Your task to perform on an android device: change keyboard looks Image 0: 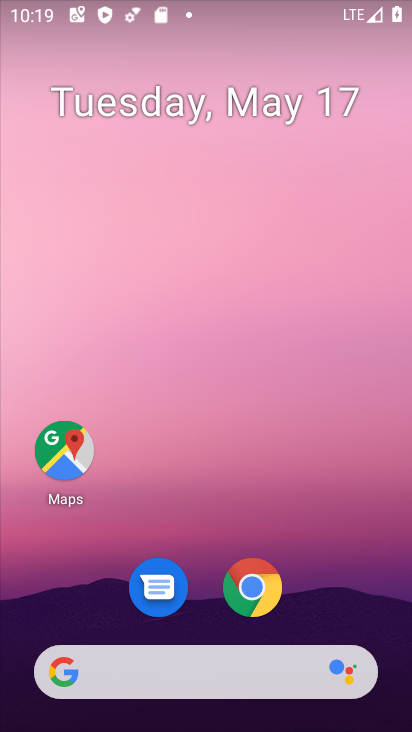
Step 0: drag from (386, 633) to (255, 53)
Your task to perform on an android device: change keyboard looks Image 1: 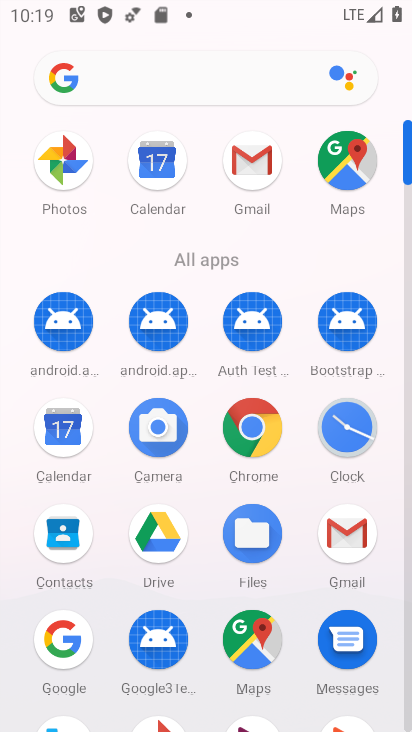
Step 1: drag from (209, 659) to (222, 137)
Your task to perform on an android device: change keyboard looks Image 2: 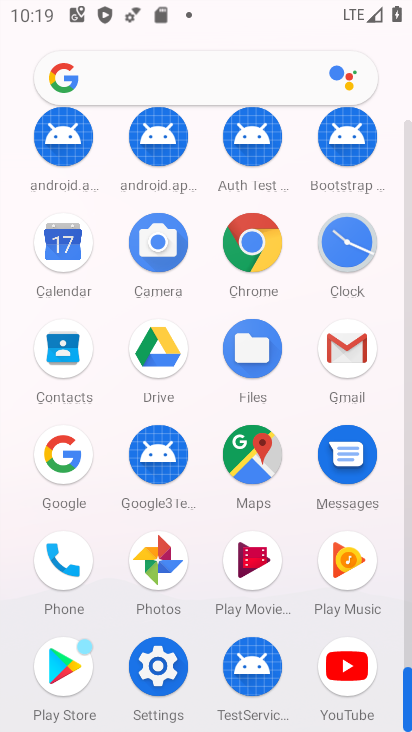
Step 2: click (160, 668)
Your task to perform on an android device: change keyboard looks Image 3: 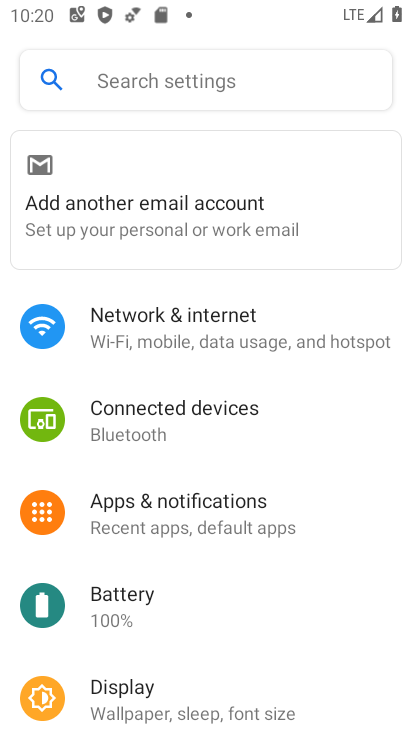
Step 3: drag from (160, 668) to (191, 90)
Your task to perform on an android device: change keyboard looks Image 4: 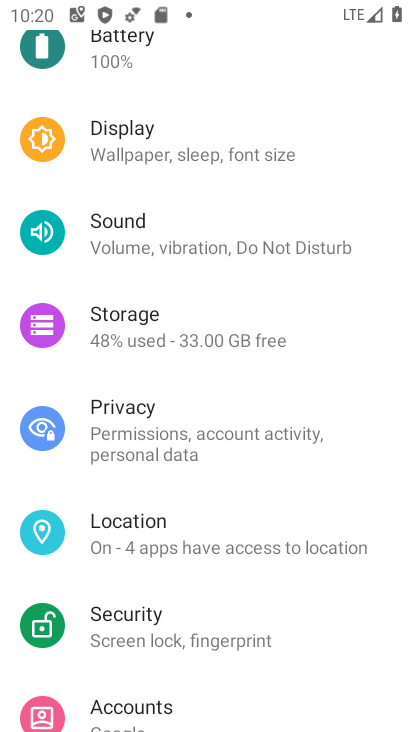
Step 4: drag from (147, 638) to (215, 76)
Your task to perform on an android device: change keyboard looks Image 5: 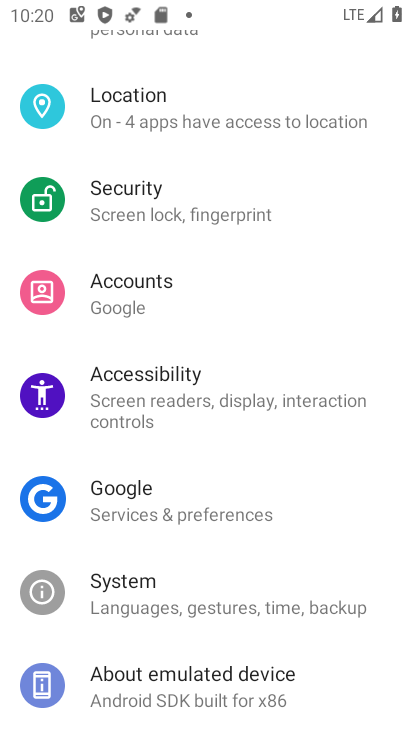
Step 5: click (183, 591)
Your task to perform on an android device: change keyboard looks Image 6: 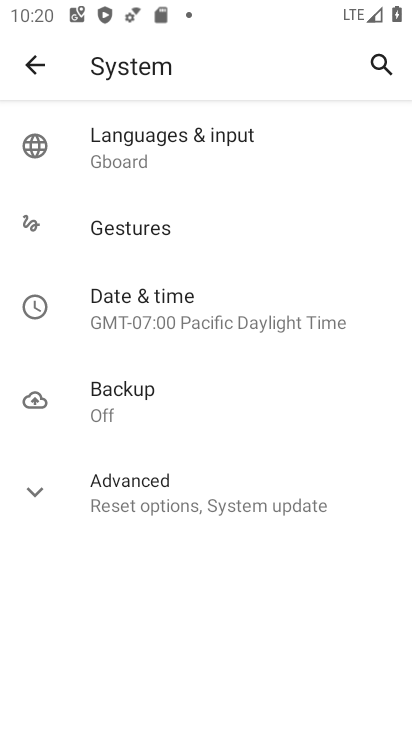
Step 6: click (177, 168)
Your task to perform on an android device: change keyboard looks Image 7: 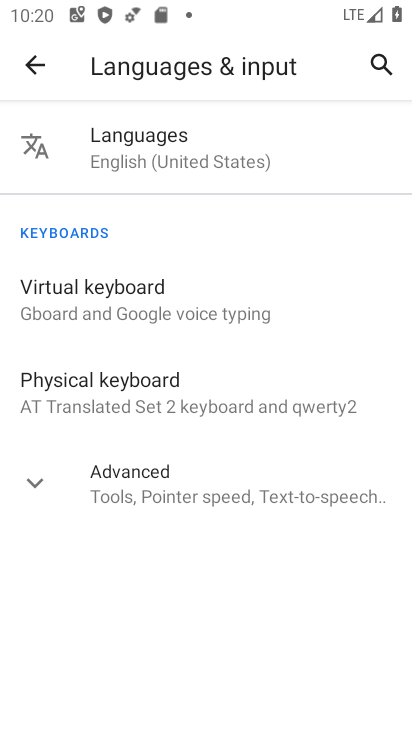
Step 7: click (157, 290)
Your task to perform on an android device: change keyboard looks Image 8: 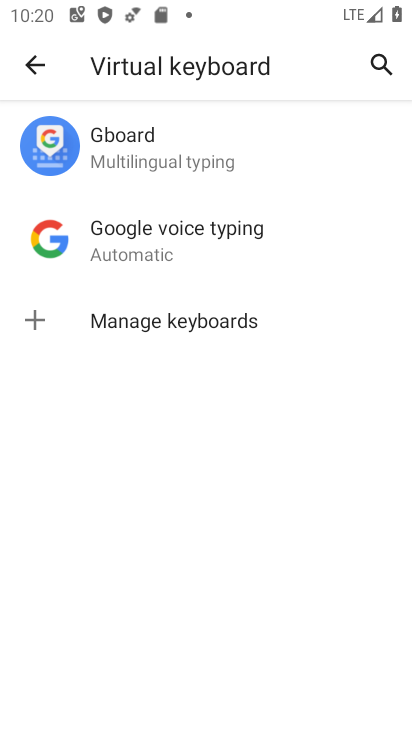
Step 8: click (155, 154)
Your task to perform on an android device: change keyboard looks Image 9: 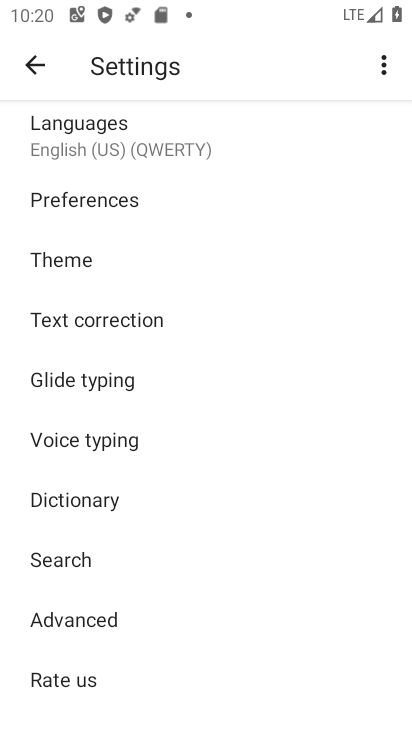
Step 9: click (113, 254)
Your task to perform on an android device: change keyboard looks Image 10: 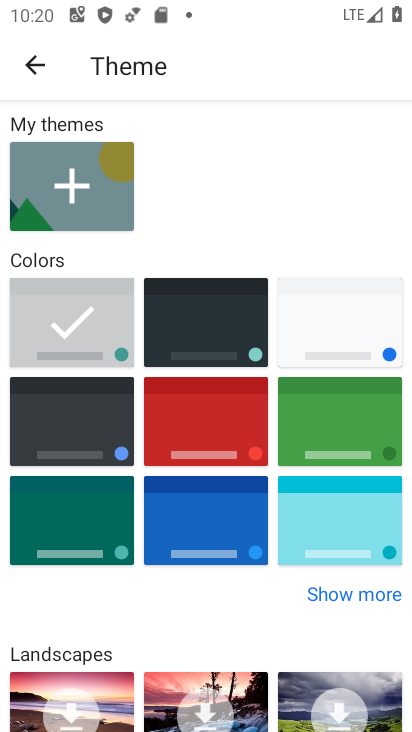
Step 10: click (237, 354)
Your task to perform on an android device: change keyboard looks Image 11: 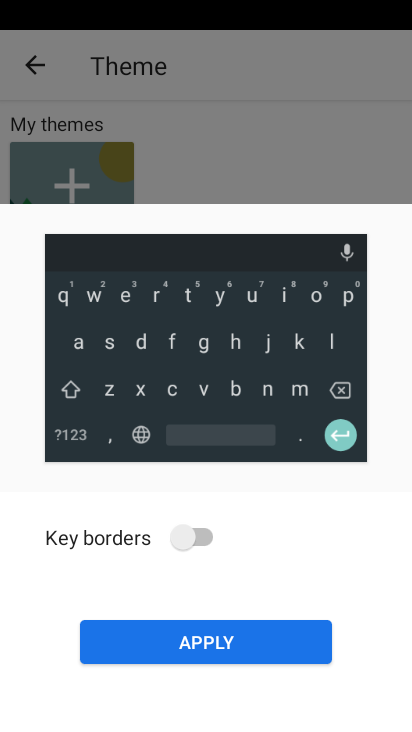
Step 11: click (175, 649)
Your task to perform on an android device: change keyboard looks Image 12: 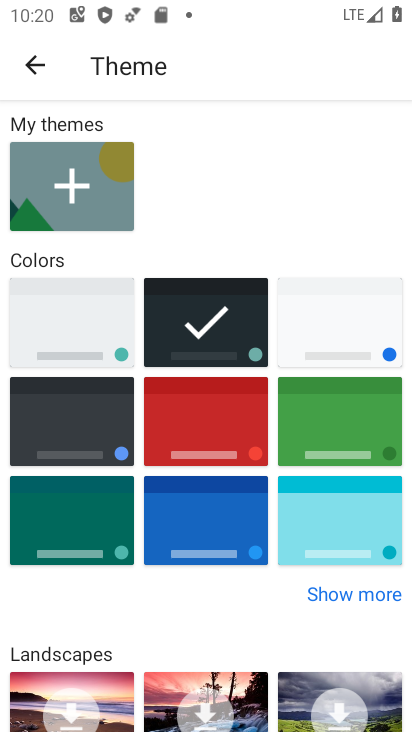
Step 12: task complete